Your task to perform on an android device: Open the web browser Image 0: 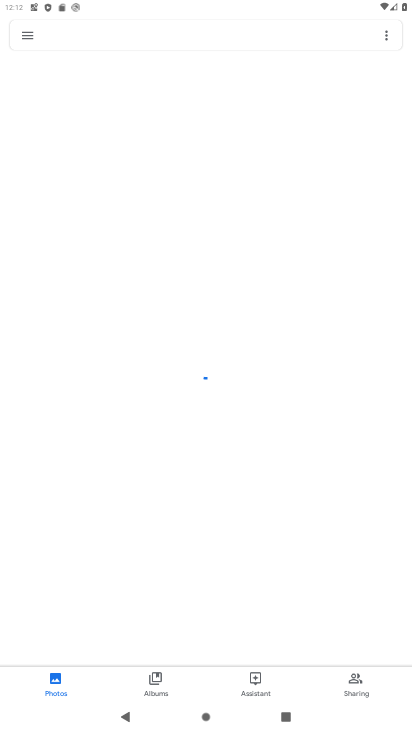
Step 0: press home button
Your task to perform on an android device: Open the web browser Image 1: 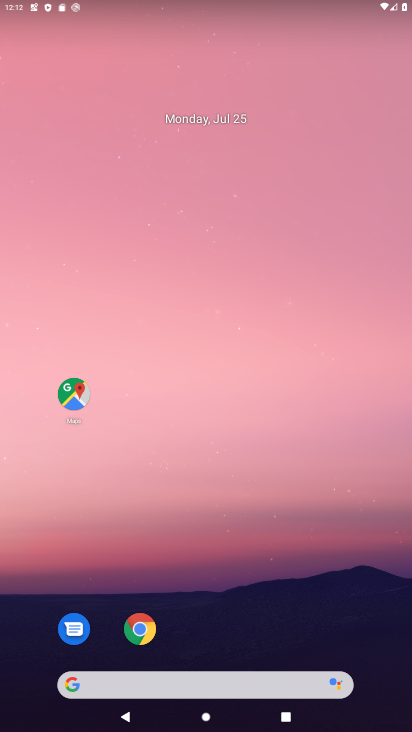
Step 1: click (135, 641)
Your task to perform on an android device: Open the web browser Image 2: 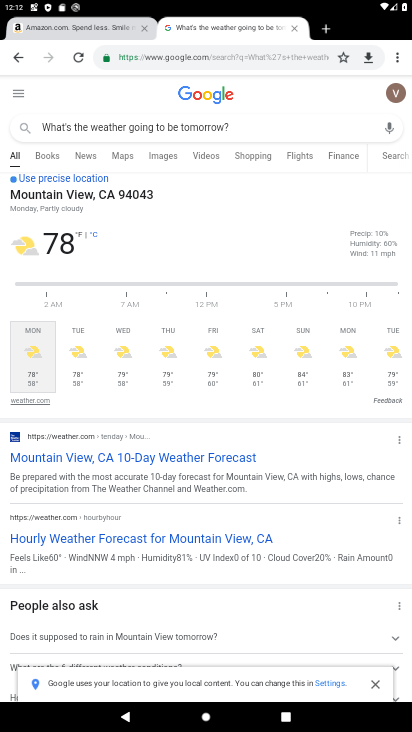
Step 2: task complete